Your task to perform on an android device: Go to wifi settings Image 0: 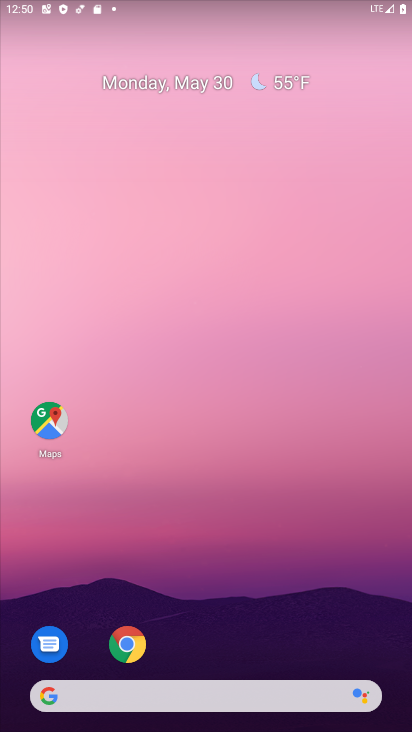
Step 0: drag from (241, 639) to (257, 153)
Your task to perform on an android device: Go to wifi settings Image 1: 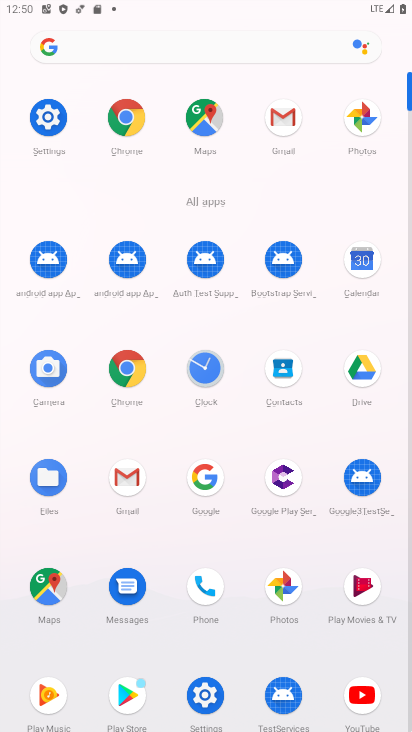
Step 1: click (62, 128)
Your task to perform on an android device: Go to wifi settings Image 2: 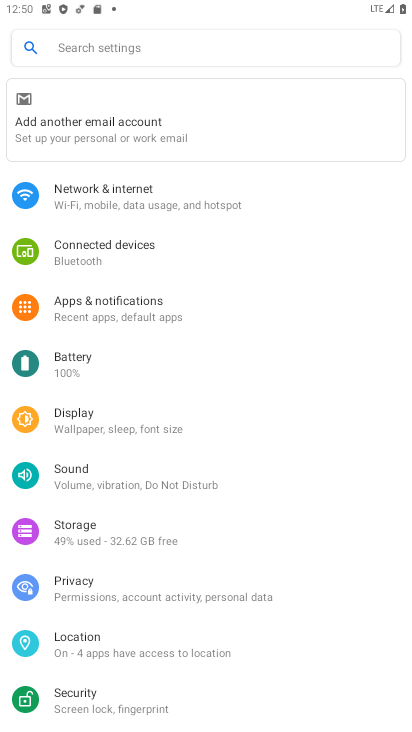
Step 2: click (179, 128)
Your task to perform on an android device: Go to wifi settings Image 3: 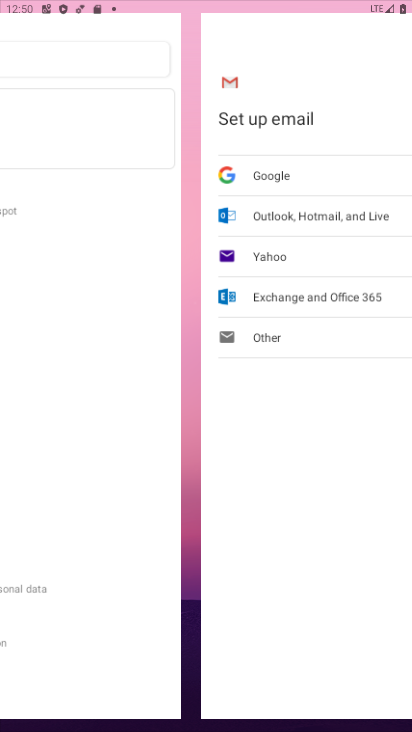
Step 3: click (208, 185)
Your task to perform on an android device: Go to wifi settings Image 4: 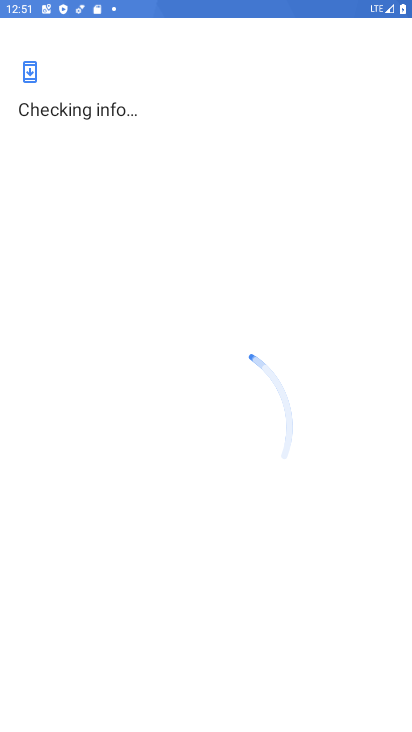
Step 4: press home button
Your task to perform on an android device: Go to wifi settings Image 5: 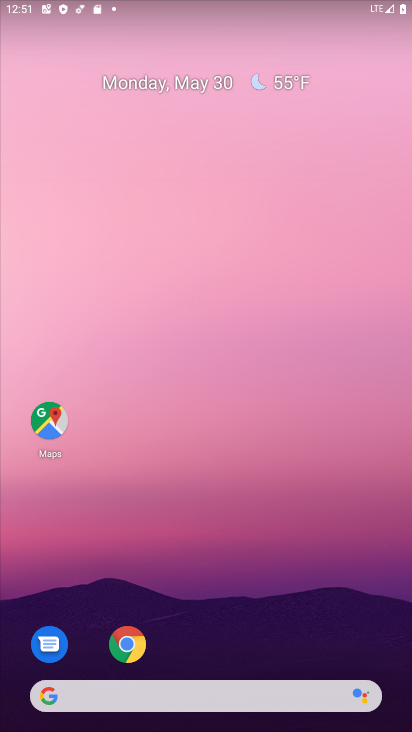
Step 5: drag from (209, 643) to (220, 261)
Your task to perform on an android device: Go to wifi settings Image 6: 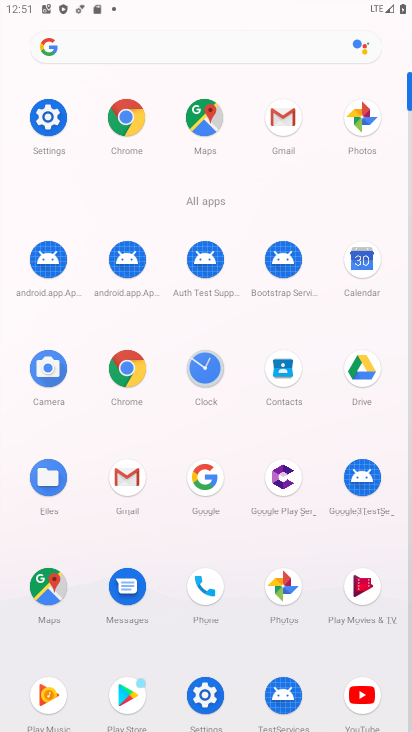
Step 6: click (48, 129)
Your task to perform on an android device: Go to wifi settings Image 7: 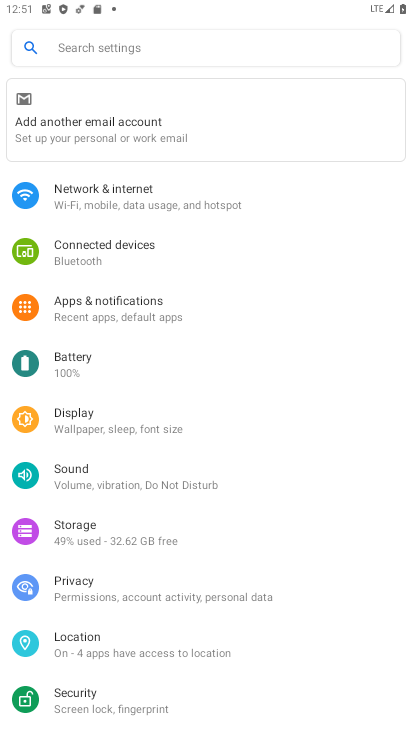
Step 7: click (140, 197)
Your task to perform on an android device: Go to wifi settings Image 8: 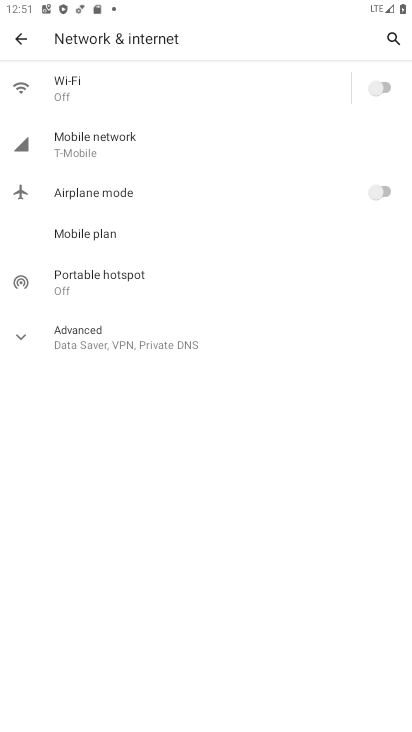
Step 8: click (229, 69)
Your task to perform on an android device: Go to wifi settings Image 9: 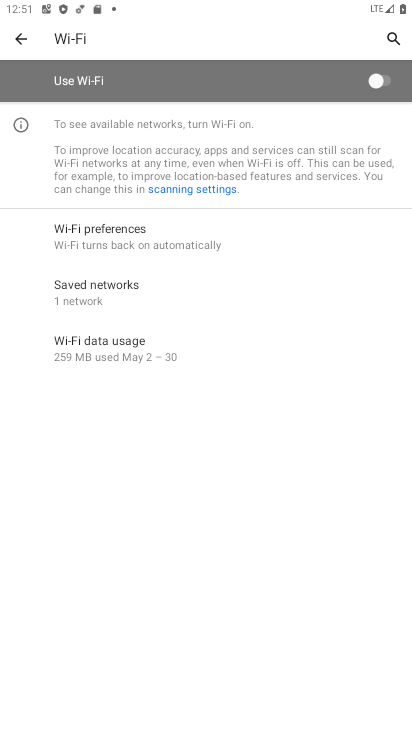
Step 9: task complete